Your task to perform on an android device: stop showing notifications on the lock screen Image 0: 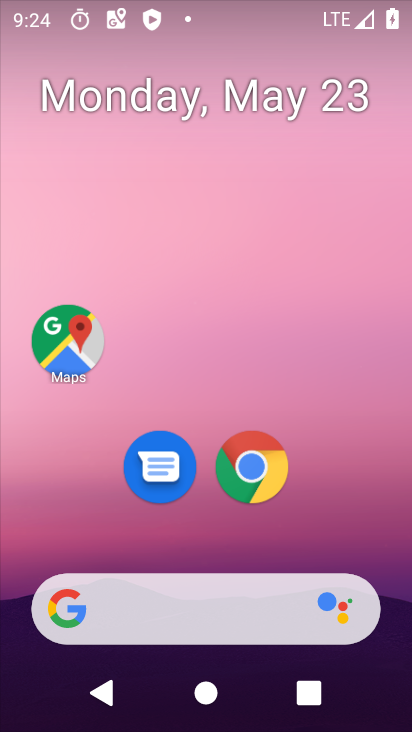
Step 0: drag from (308, 532) to (185, 21)
Your task to perform on an android device: stop showing notifications on the lock screen Image 1: 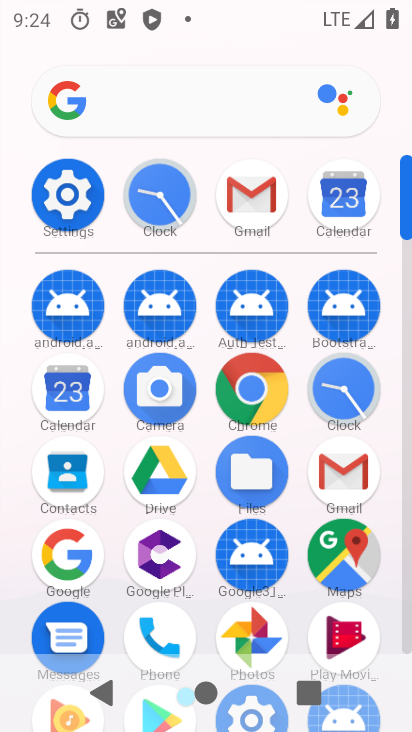
Step 1: click (62, 206)
Your task to perform on an android device: stop showing notifications on the lock screen Image 2: 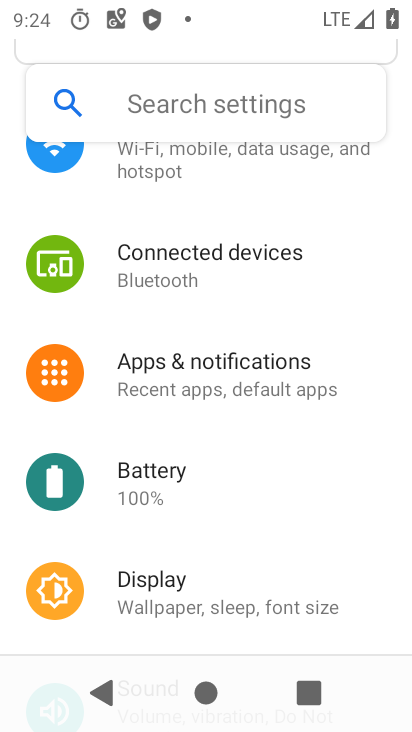
Step 2: click (238, 372)
Your task to perform on an android device: stop showing notifications on the lock screen Image 3: 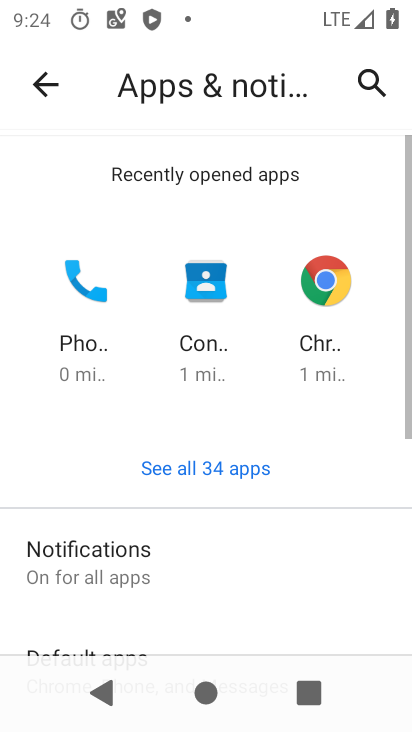
Step 3: click (152, 562)
Your task to perform on an android device: stop showing notifications on the lock screen Image 4: 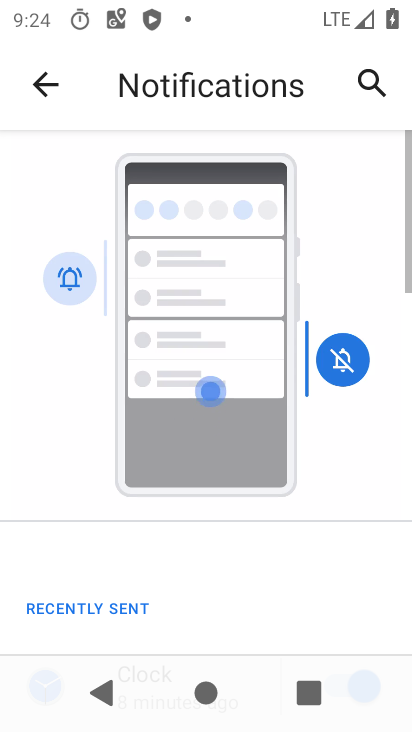
Step 4: drag from (226, 618) to (178, 172)
Your task to perform on an android device: stop showing notifications on the lock screen Image 5: 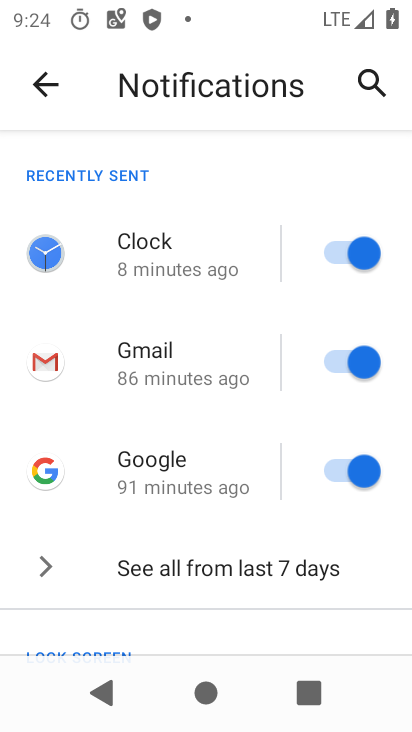
Step 5: drag from (226, 147) to (223, 58)
Your task to perform on an android device: stop showing notifications on the lock screen Image 6: 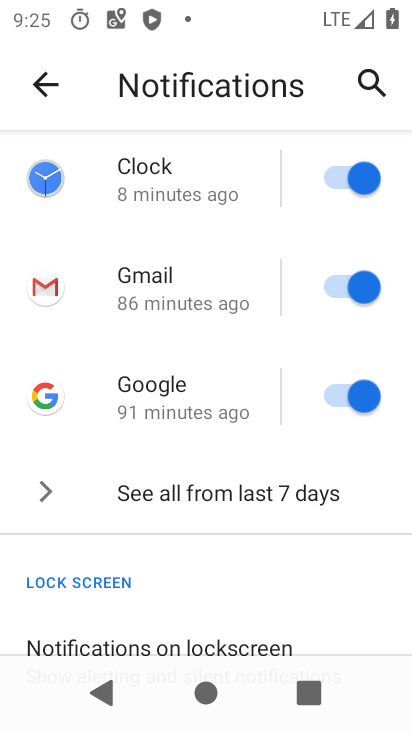
Step 6: drag from (193, 599) to (208, 246)
Your task to perform on an android device: stop showing notifications on the lock screen Image 7: 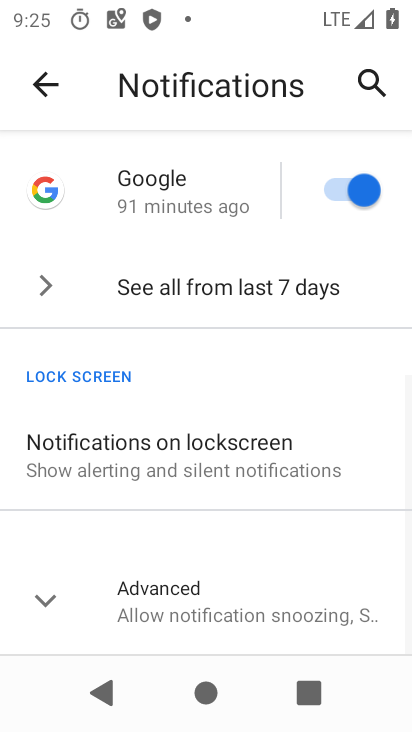
Step 7: click (200, 466)
Your task to perform on an android device: stop showing notifications on the lock screen Image 8: 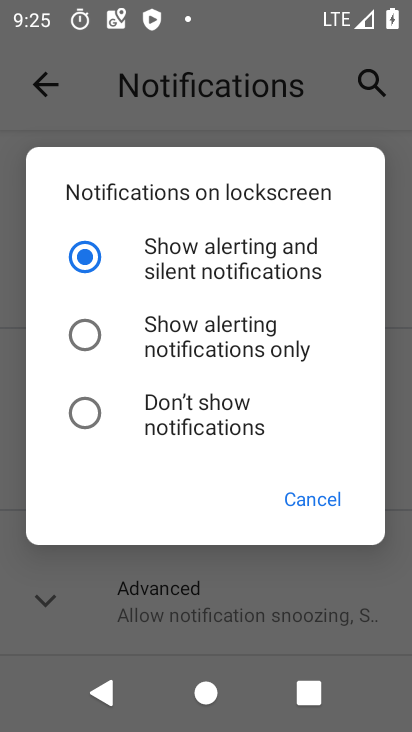
Step 8: click (167, 406)
Your task to perform on an android device: stop showing notifications on the lock screen Image 9: 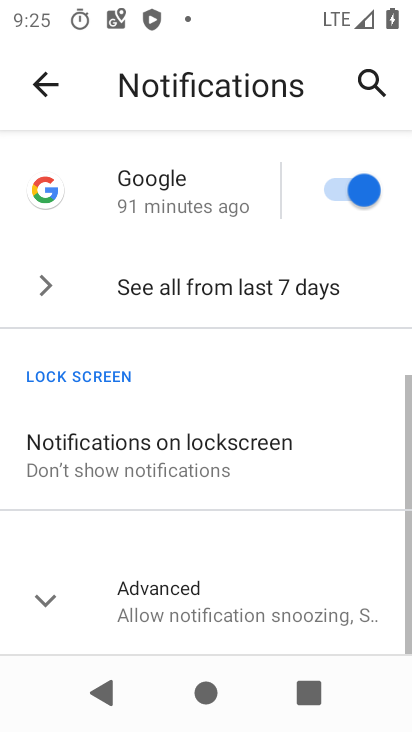
Step 9: task complete